Your task to perform on an android device: What's the weather going to be this weekend? Image 0: 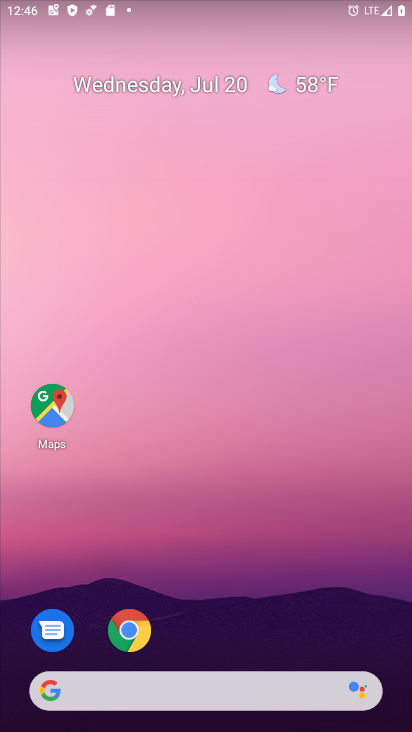
Step 0: drag from (222, 680) to (257, 113)
Your task to perform on an android device: What's the weather going to be this weekend? Image 1: 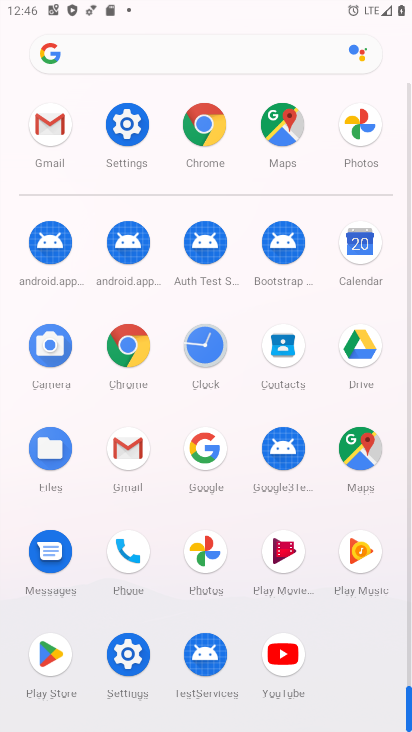
Step 1: click (207, 466)
Your task to perform on an android device: What's the weather going to be this weekend? Image 2: 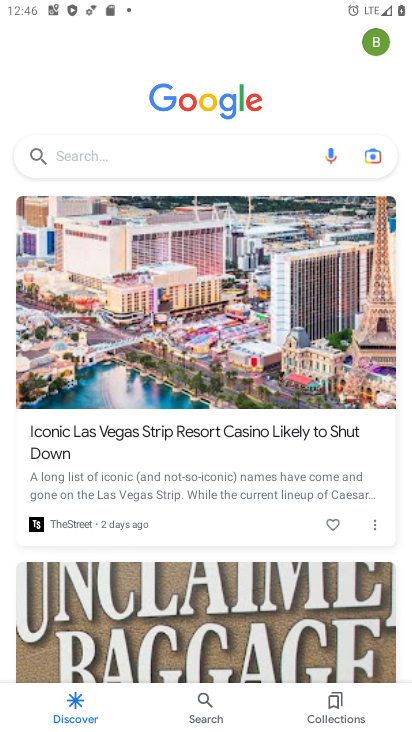
Step 2: click (193, 159)
Your task to perform on an android device: What's the weather going to be this weekend? Image 3: 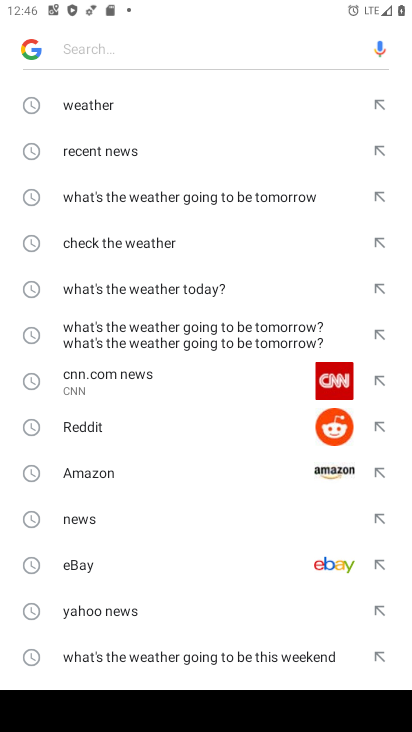
Step 3: click (151, 110)
Your task to perform on an android device: What's the weather going to be this weekend? Image 4: 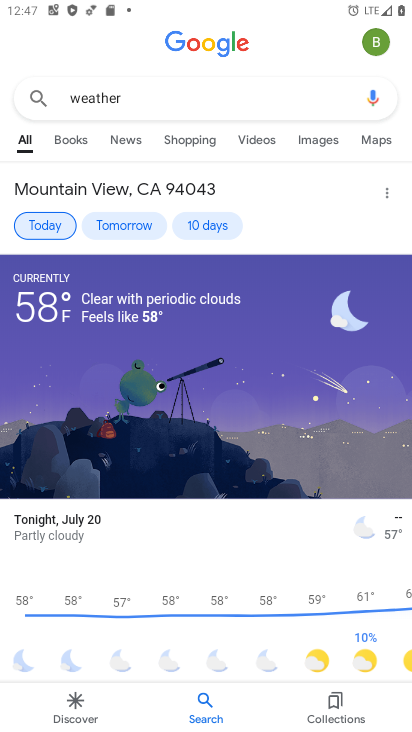
Step 4: click (213, 229)
Your task to perform on an android device: What's the weather going to be this weekend? Image 5: 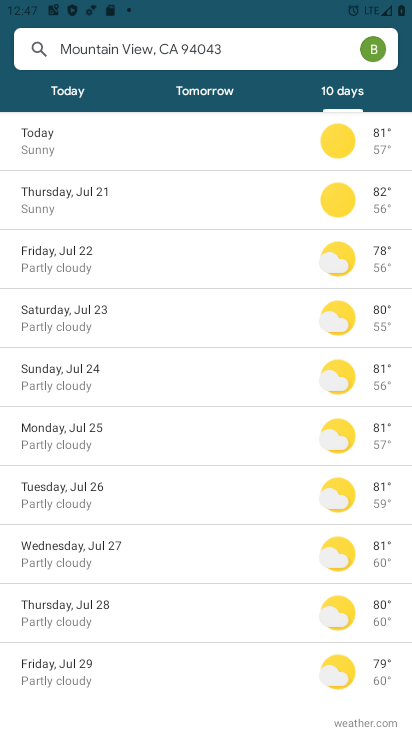
Step 5: task complete